Your task to perform on an android device: Open location settings Image 0: 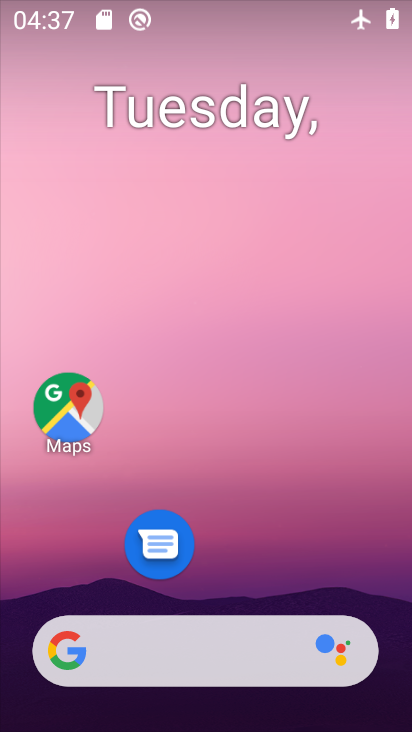
Step 0: drag from (205, 589) to (210, 288)
Your task to perform on an android device: Open location settings Image 1: 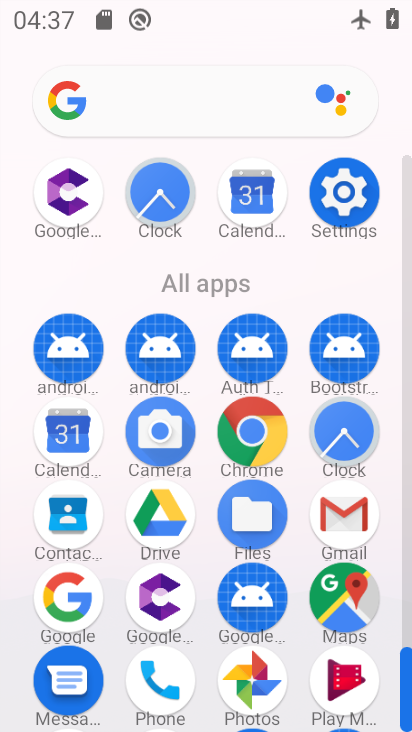
Step 1: click (355, 203)
Your task to perform on an android device: Open location settings Image 2: 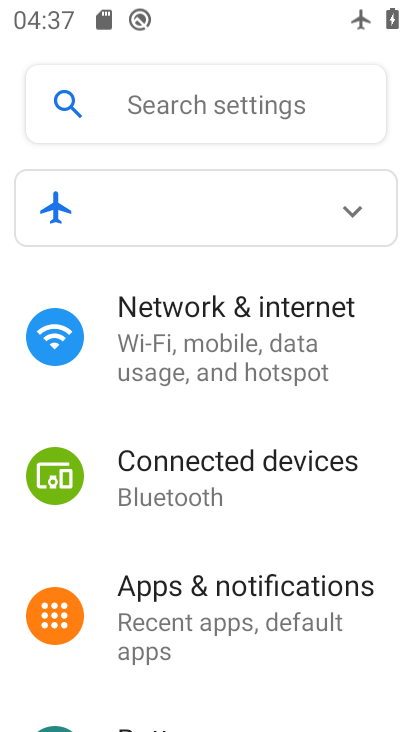
Step 2: drag from (221, 613) to (246, 378)
Your task to perform on an android device: Open location settings Image 3: 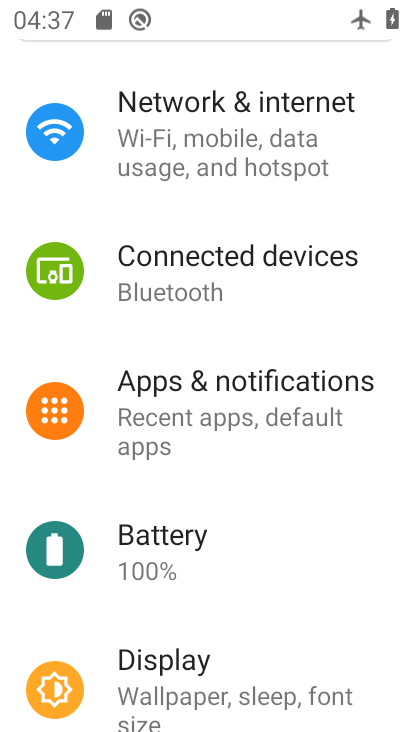
Step 3: drag from (228, 631) to (240, 521)
Your task to perform on an android device: Open location settings Image 4: 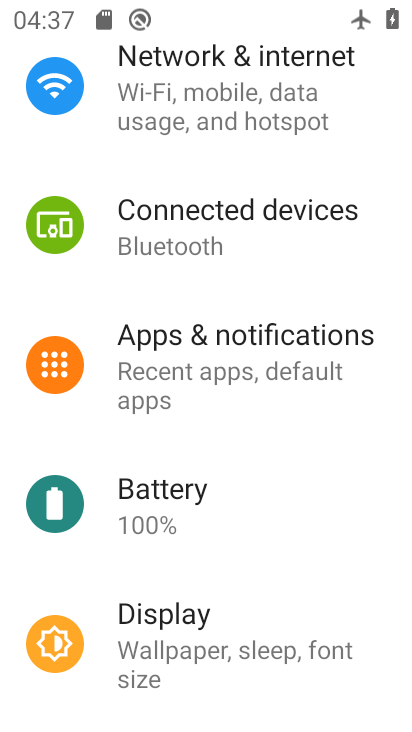
Step 4: drag from (226, 657) to (238, 340)
Your task to perform on an android device: Open location settings Image 5: 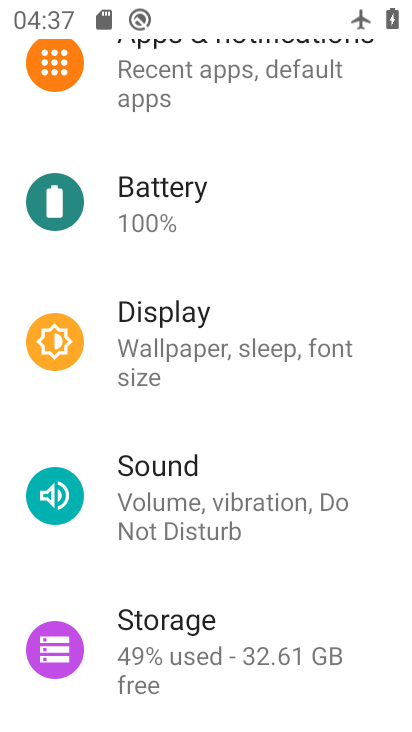
Step 5: drag from (222, 620) to (310, 178)
Your task to perform on an android device: Open location settings Image 6: 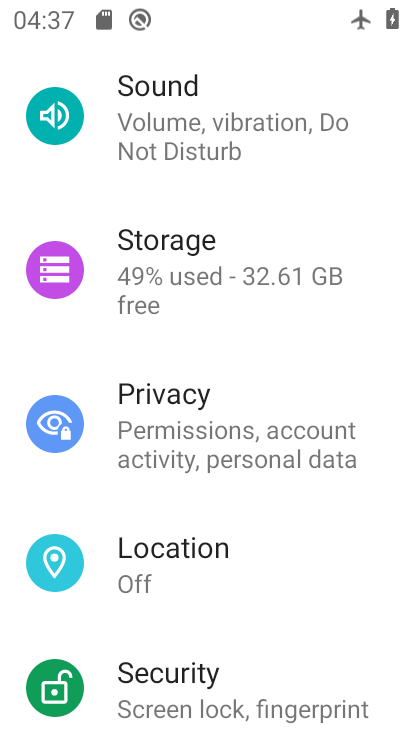
Step 6: click (191, 562)
Your task to perform on an android device: Open location settings Image 7: 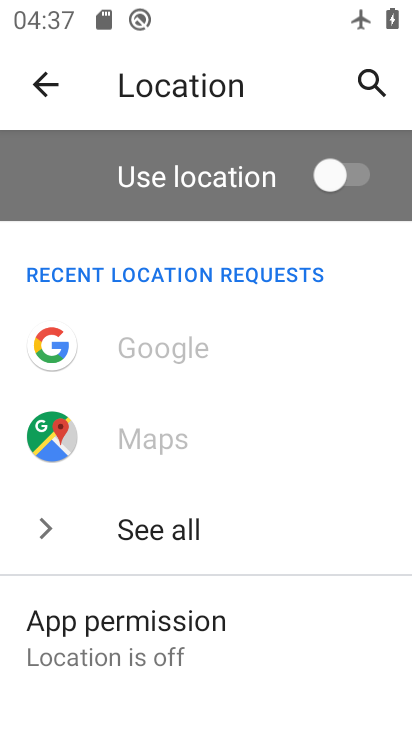
Step 7: task complete